Your task to perform on an android device: open app "Google Play Music" (install if not already installed) Image 0: 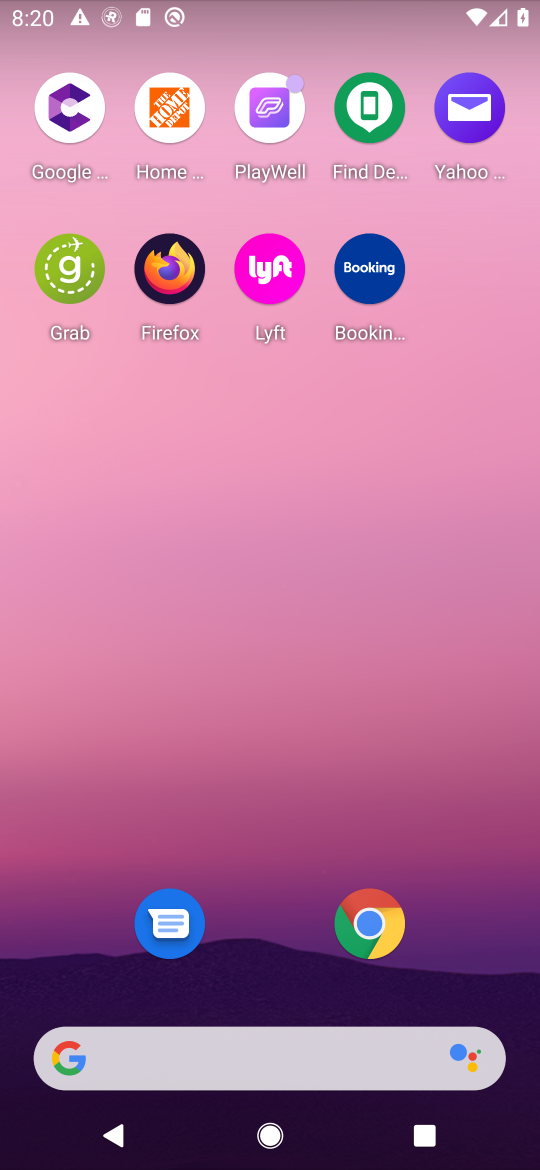
Step 0: drag from (451, 926) to (474, 278)
Your task to perform on an android device: open app "Google Play Music" (install if not already installed) Image 1: 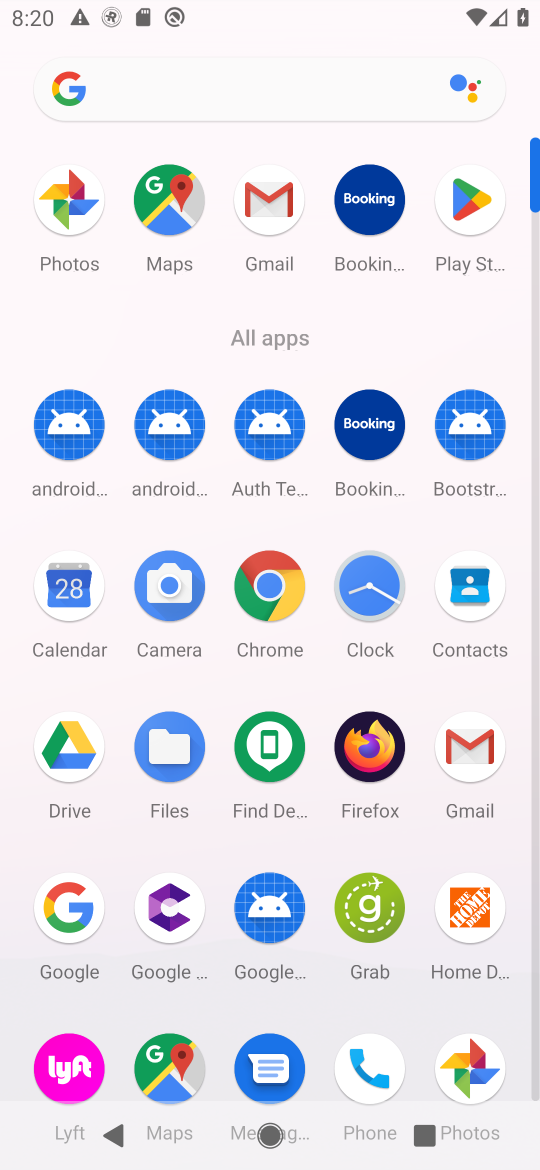
Step 1: click (482, 202)
Your task to perform on an android device: open app "Google Play Music" (install if not already installed) Image 2: 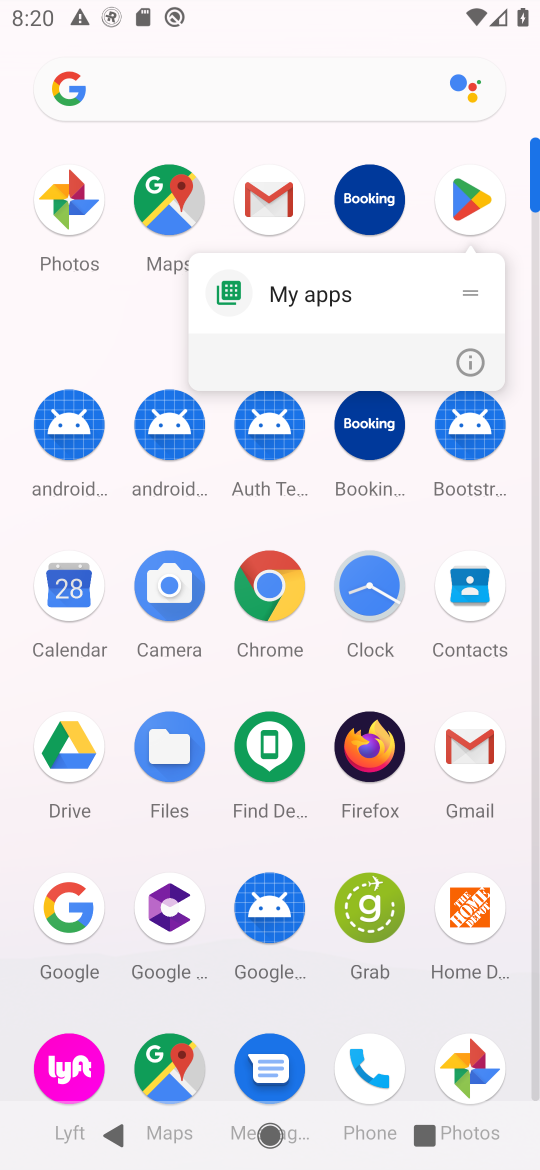
Step 2: click (465, 199)
Your task to perform on an android device: open app "Google Play Music" (install if not already installed) Image 3: 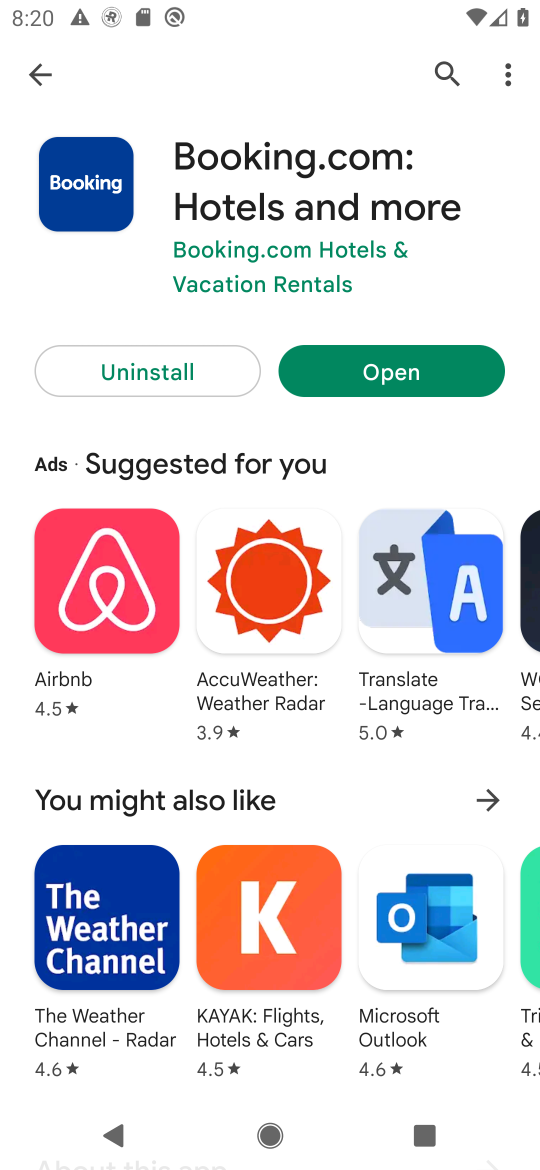
Step 3: click (442, 68)
Your task to perform on an android device: open app "Google Play Music" (install if not already installed) Image 4: 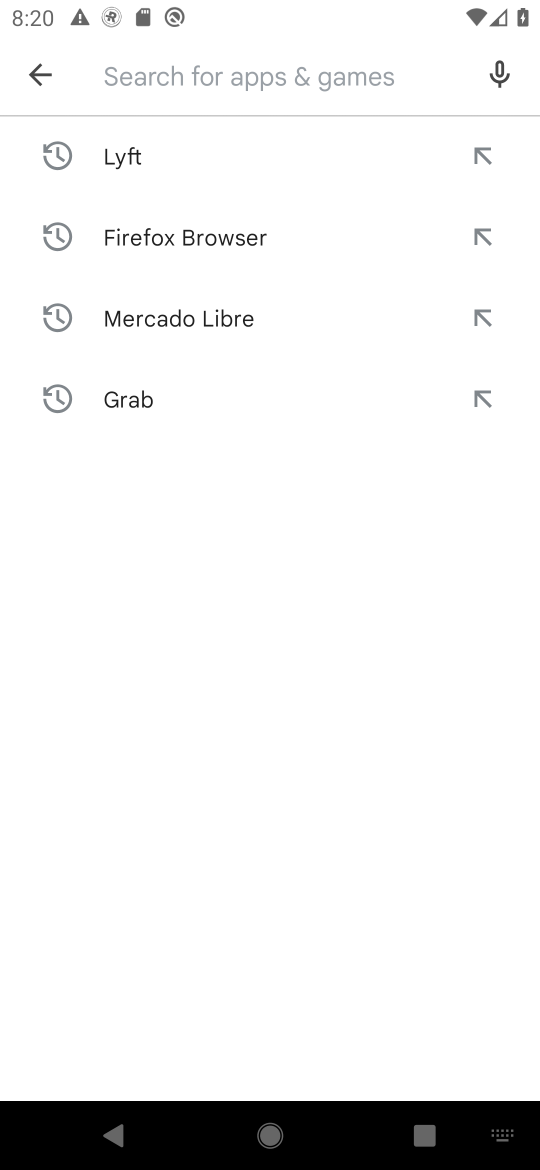
Step 4: type "Google Play Music"
Your task to perform on an android device: open app "Google Play Music" (install if not already installed) Image 5: 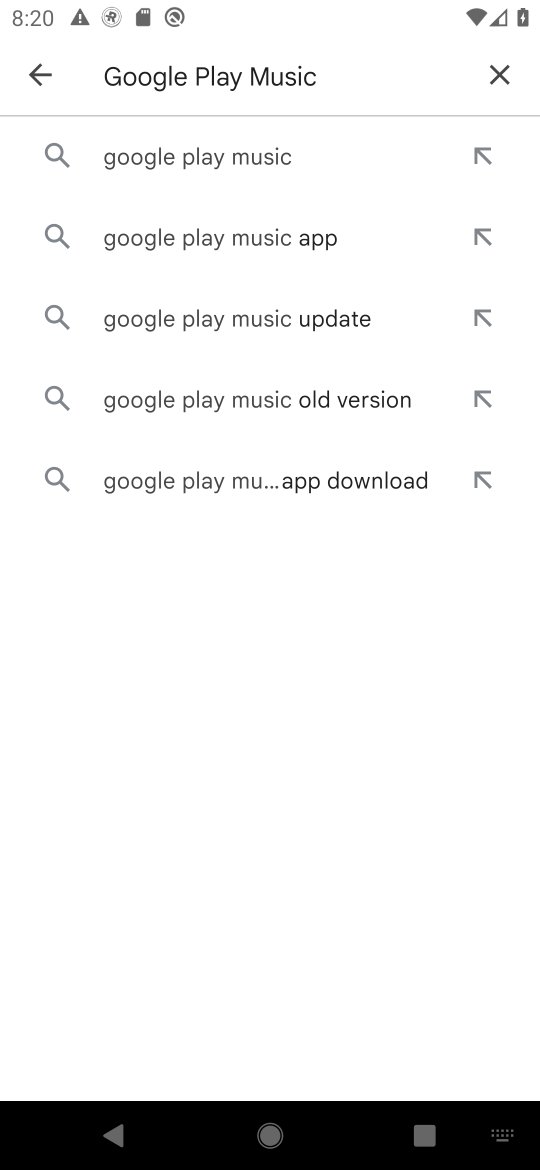
Step 5: press enter
Your task to perform on an android device: open app "Google Play Music" (install if not already installed) Image 6: 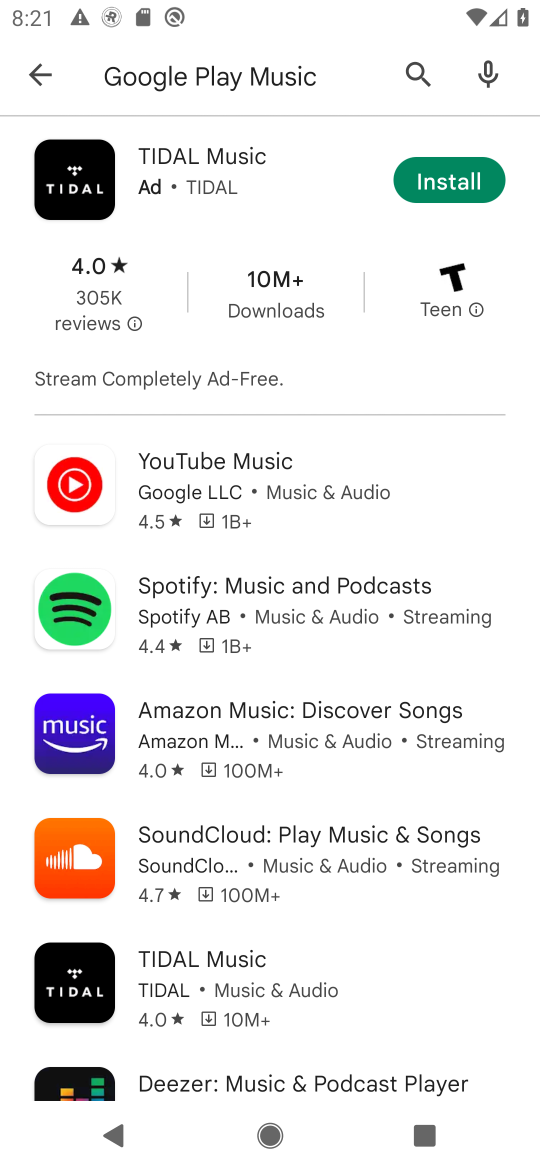
Step 6: click (438, 186)
Your task to perform on an android device: open app "Google Play Music" (install if not already installed) Image 7: 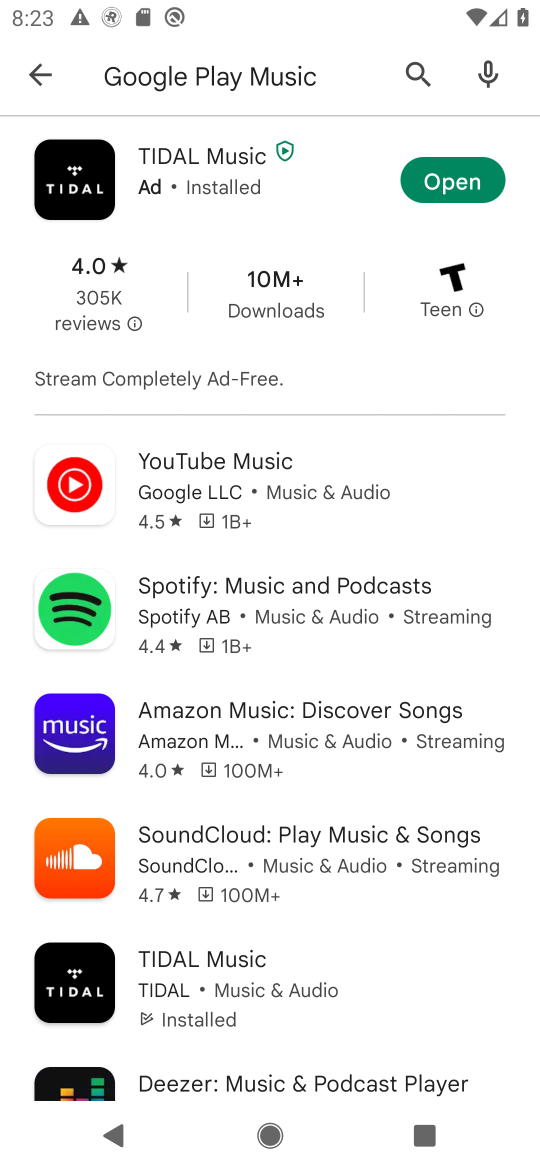
Step 7: click (419, 167)
Your task to perform on an android device: open app "Google Play Music" (install if not already installed) Image 8: 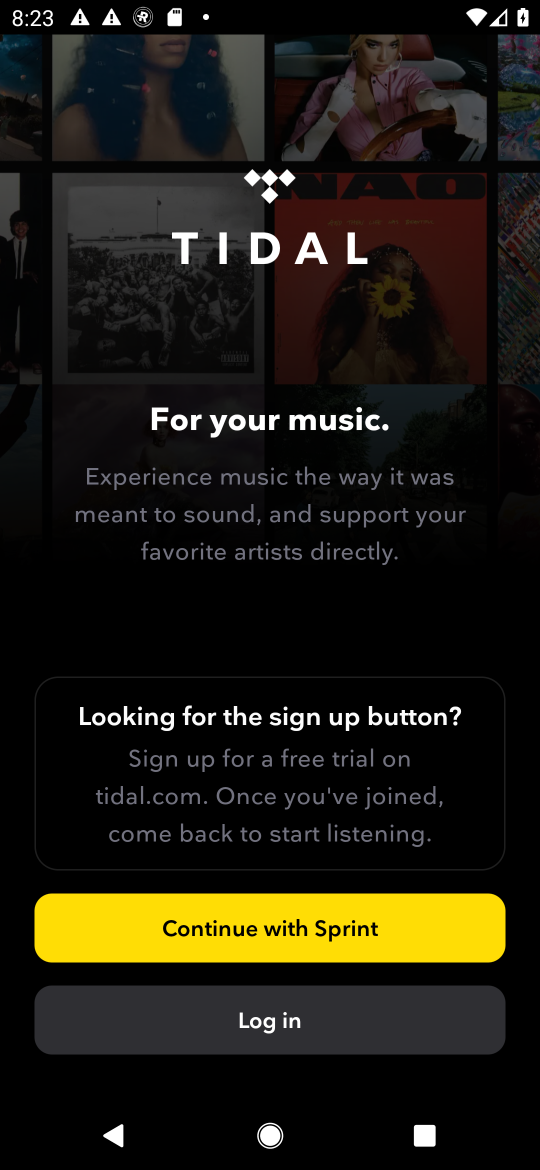
Step 8: task complete